Your task to perform on an android device: turn off priority inbox in the gmail app Image 0: 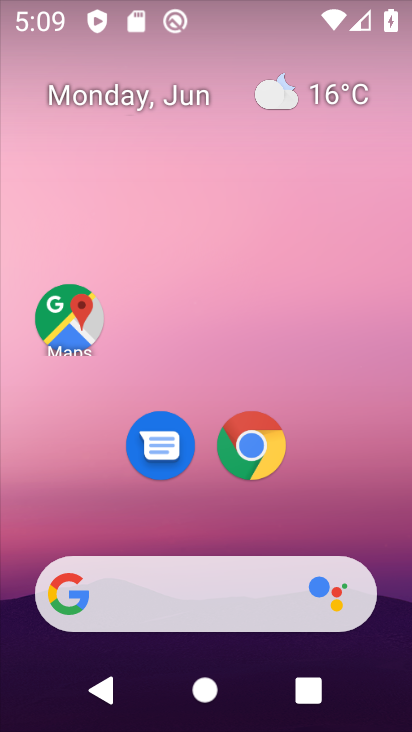
Step 0: drag from (325, 519) to (226, 27)
Your task to perform on an android device: turn off priority inbox in the gmail app Image 1: 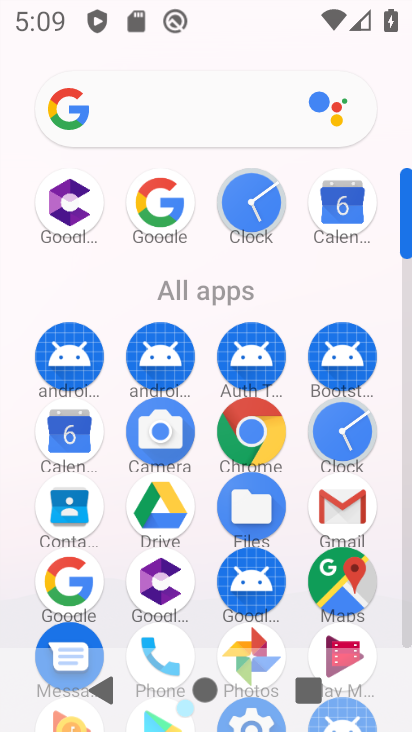
Step 1: click (343, 505)
Your task to perform on an android device: turn off priority inbox in the gmail app Image 2: 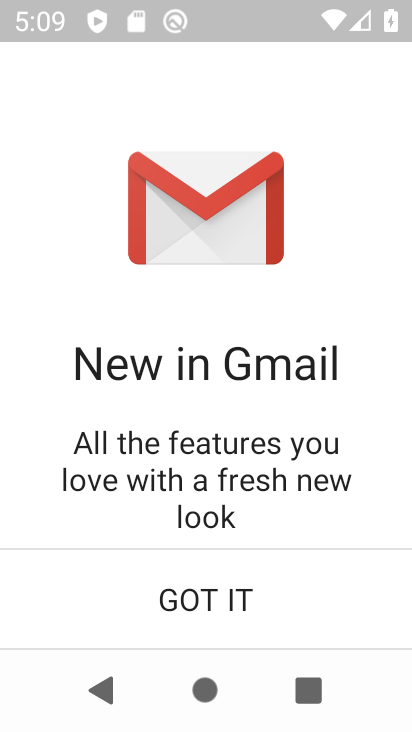
Step 2: click (207, 593)
Your task to perform on an android device: turn off priority inbox in the gmail app Image 3: 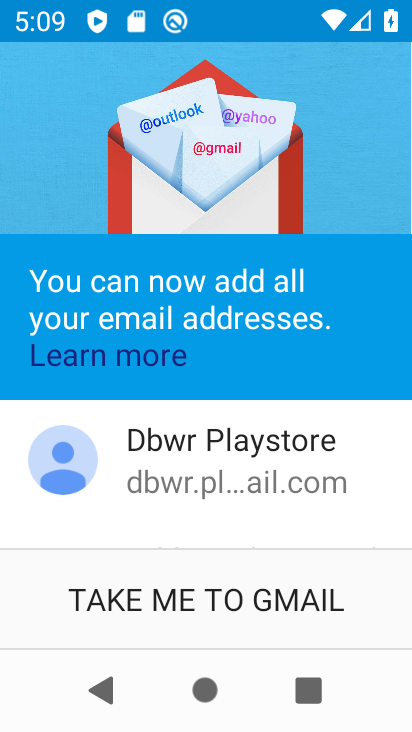
Step 3: click (196, 596)
Your task to perform on an android device: turn off priority inbox in the gmail app Image 4: 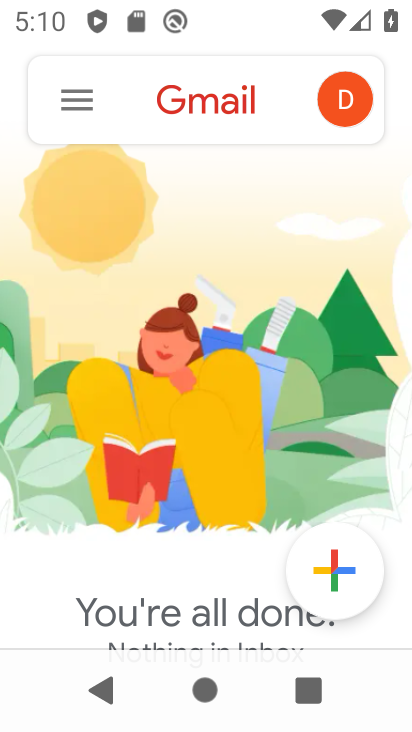
Step 4: click (71, 98)
Your task to perform on an android device: turn off priority inbox in the gmail app Image 5: 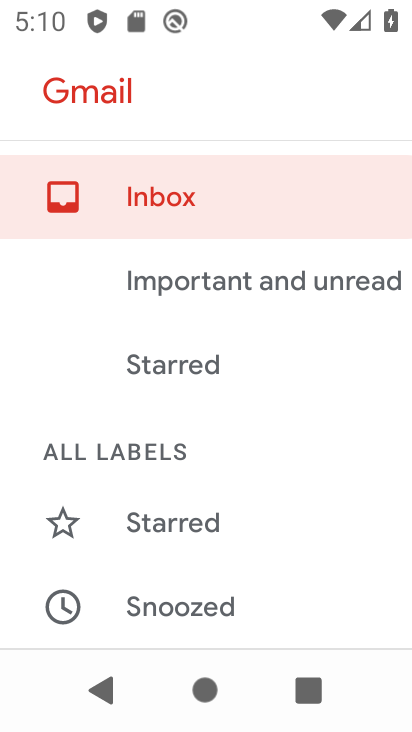
Step 5: drag from (138, 490) to (165, 280)
Your task to perform on an android device: turn off priority inbox in the gmail app Image 6: 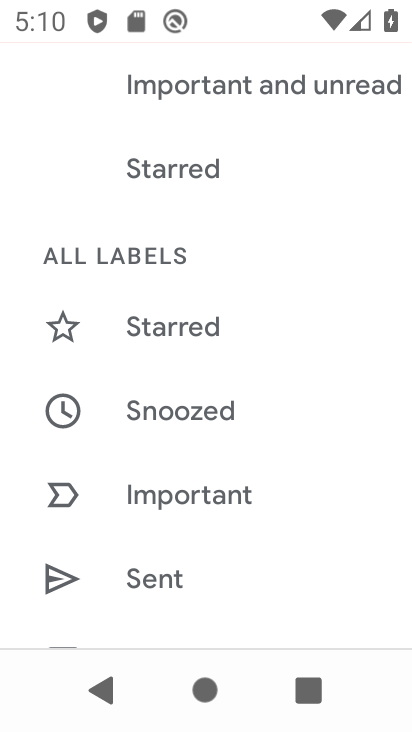
Step 6: drag from (185, 463) to (183, 268)
Your task to perform on an android device: turn off priority inbox in the gmail app Image 7: 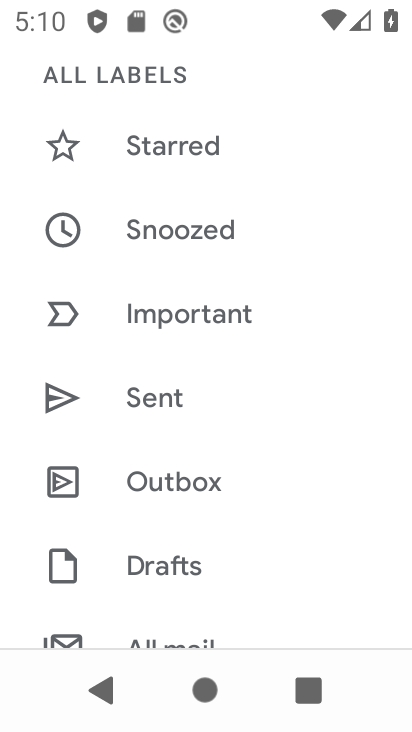
Step 7: drag from (164, 448) to (178, 285)
Your task to perform on an android device: turn off priority inbox in the gmail app Image 8: 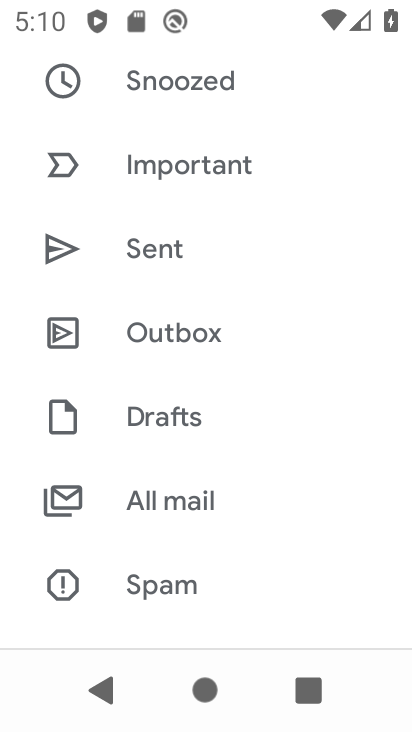
Step 8: drag from (150, 623) to (193, 293)
Your task to perform on an android device: turn off priority inbox in the gmail app Image 9: 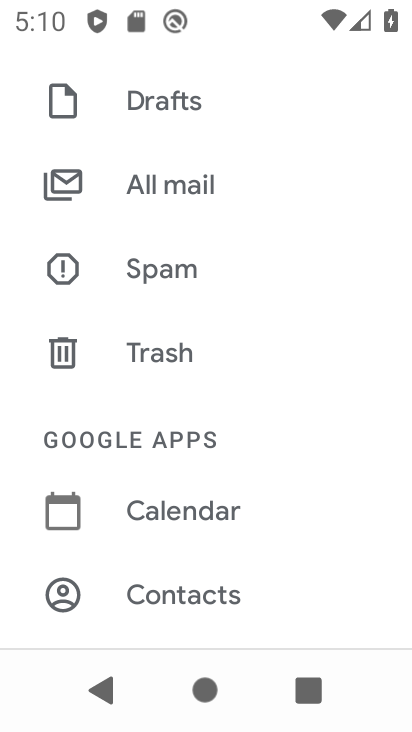
Step 9: drag from (164, 620) to (189, 362)
Your task to perform on an android device: turn off priority inbox in the gmail app Image 10: 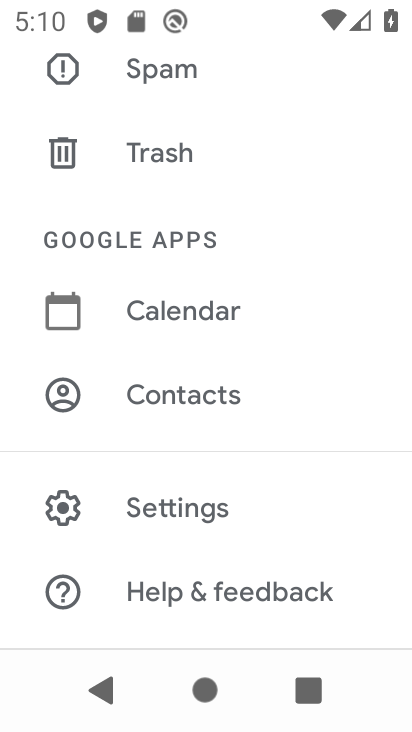
Step 10: click (175, 509)
Your task to perform on an android device: turn off priority inbox in the gmail app Image 11: 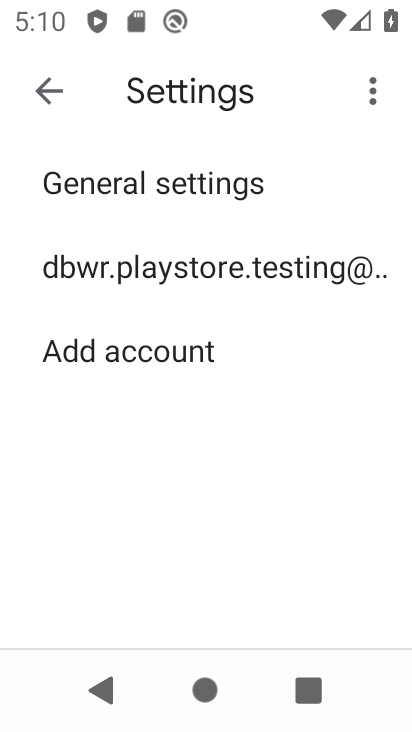
Step 11: click (140, 272)
Your task to perform on an android device: turn off priority inbox in the gmail app Image 12: 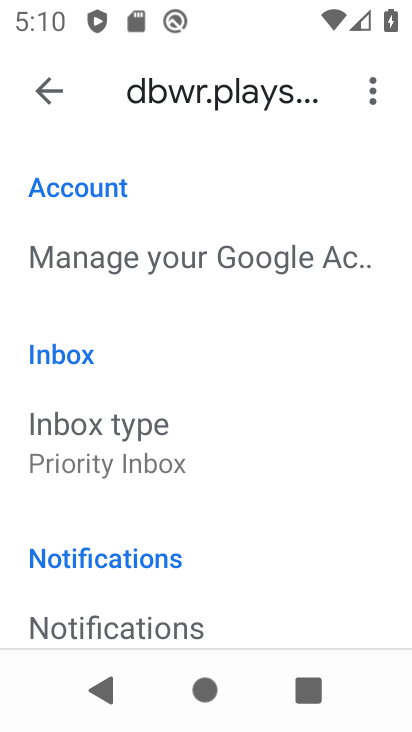
Step 12: click (130, 438)
Your task to perform on an android device: turn off priority inbox in the gmail app Image 13: 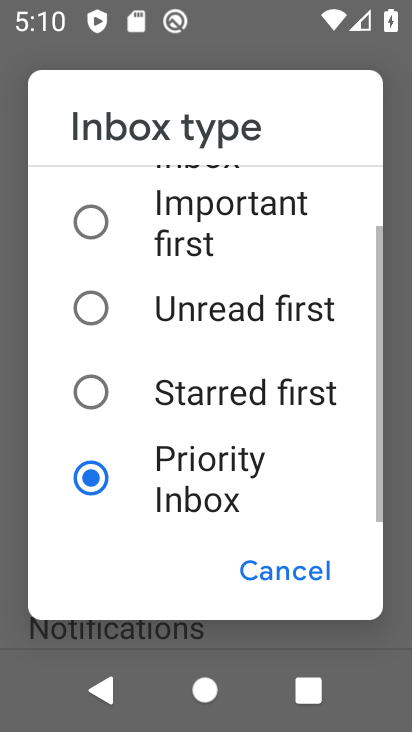
Step 13: click (99, 308)
Your task to perform on an android device: turn off priority inbox in the gmail app Image 14: 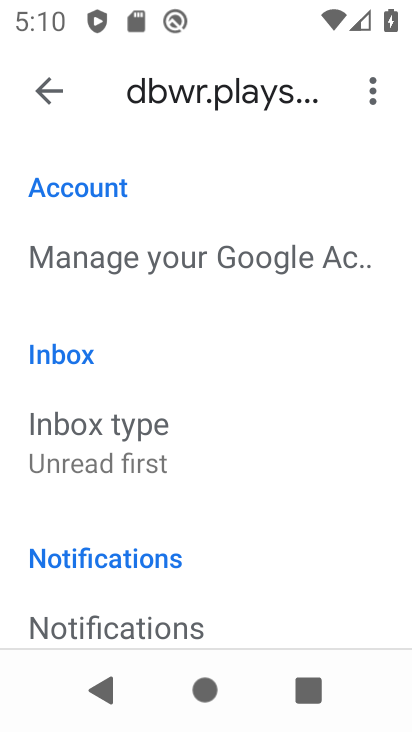
Step 14: task complete